Your task to perform on an android device: check android version Image 0: 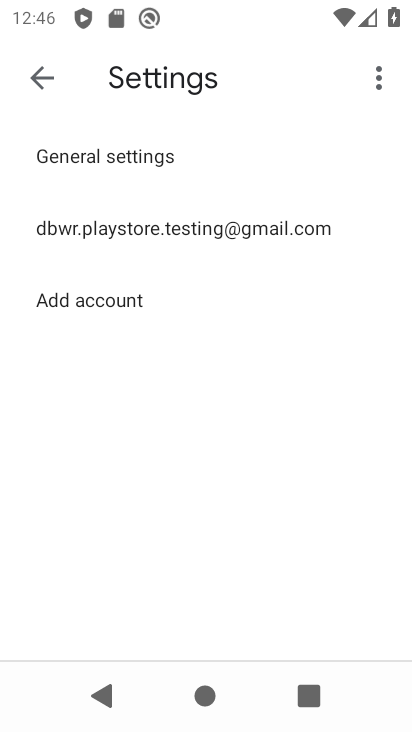
Step 0: press home button
Your task to perform on an android device: check android version Image 1: 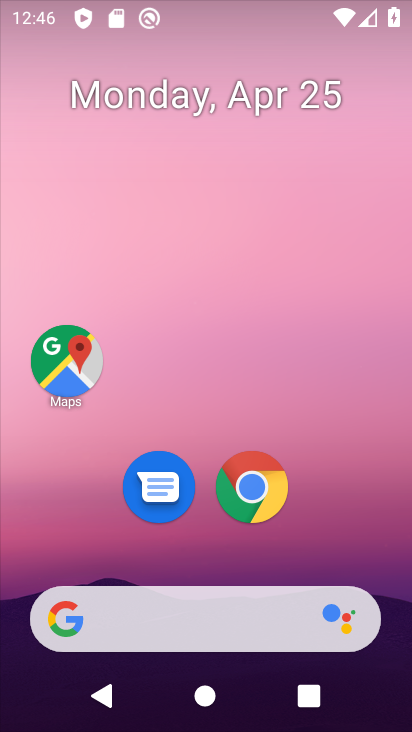
Step 1: drag from (141, 509) to (198, 0)
Your task to perform on an android device: check android version Image 2: 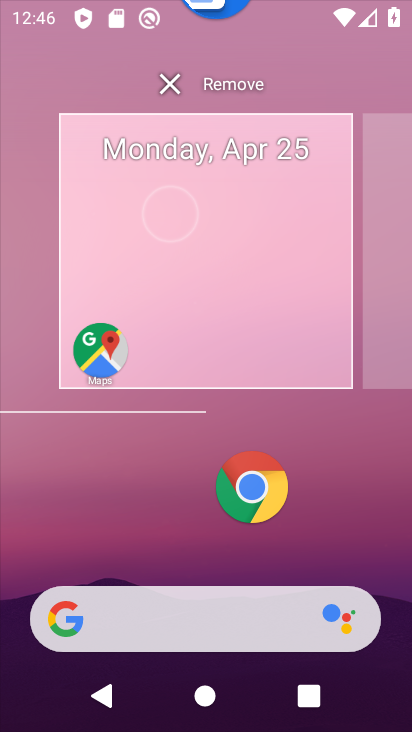
Step 2: click (336, 545)
Your task to perform on an android device: check android version Image 3: 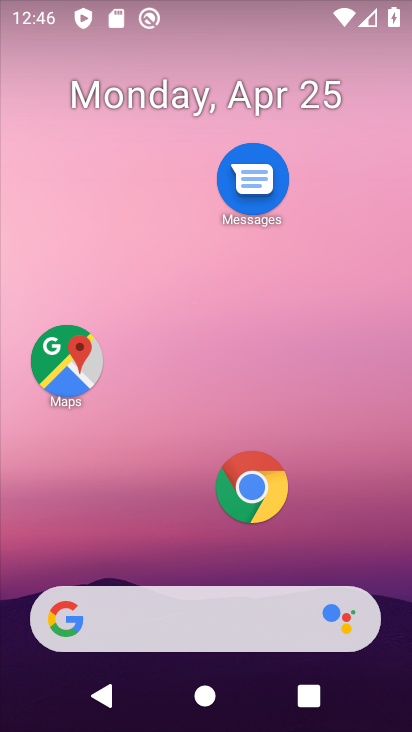
Step 3: drag from (256, 657) to (324, 9)
Your task to perform on an android device: check android version Image 4: 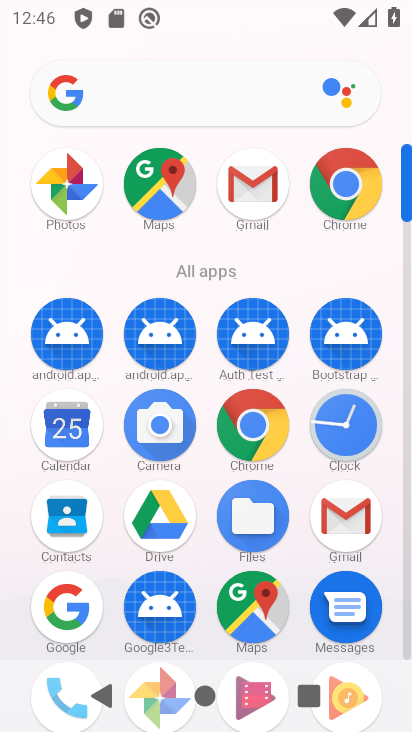
Step 4: drag from (202, 606) to (170, 172)
Your task to perform on an android device: check android version Image 5: 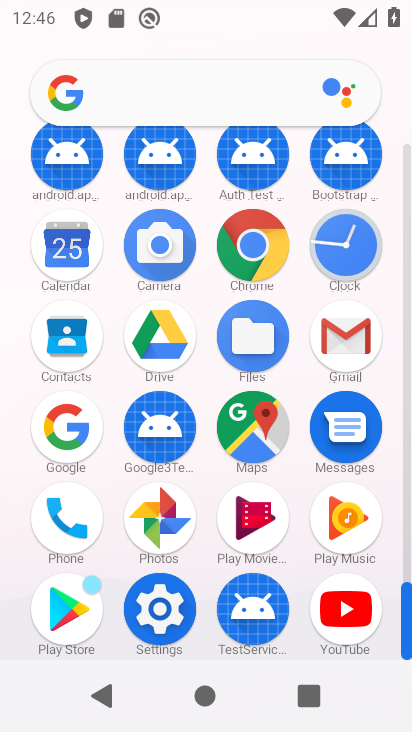
Step 5: click (169, 627)
Your task to perform on an android device: check android version Image 6: 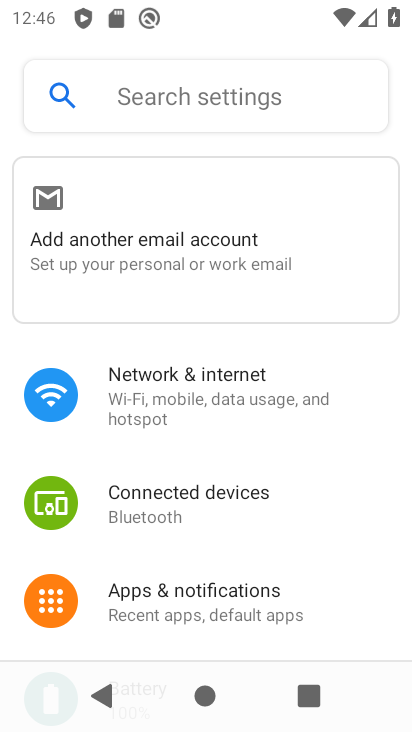
Step 6: drag from (184, 591) to (255, 159)
Your task to perform on an android device: check android version Image 7: 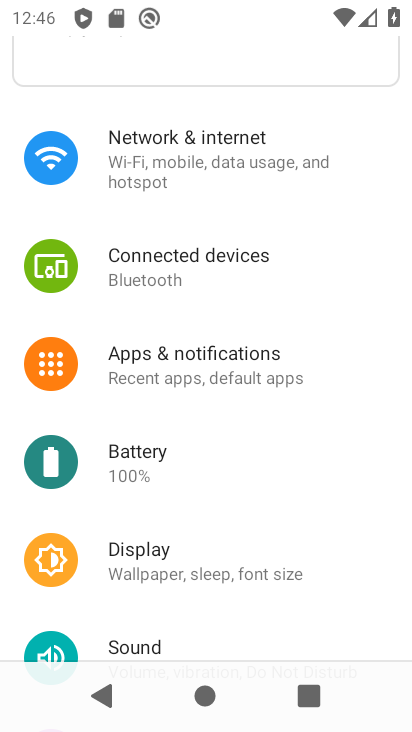
Step 7: drag from (194, 574) to (269, 25)
Your task to perform on an android device: check android version Image 8: 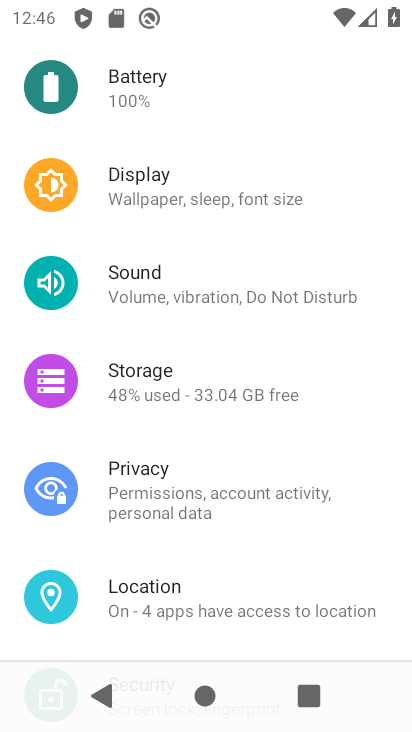
Step 8: drag from (246, 504) to (270, 5)
Your task to perform on an android device: check android version Image 9: 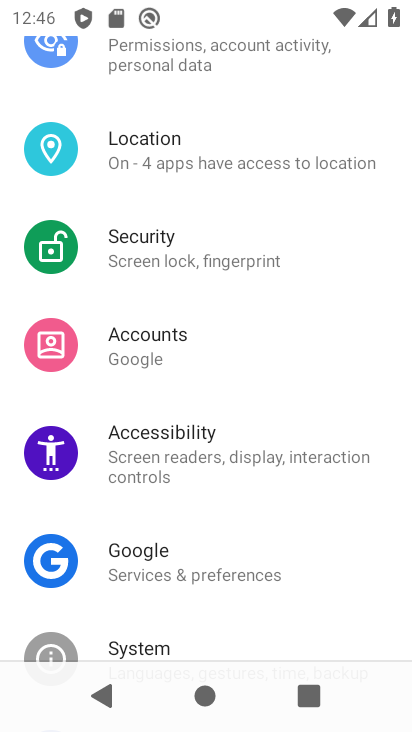
Step 9: drag from (254, 593) to (233, 68)
Your task to perform on an android device: check android version Image 10: 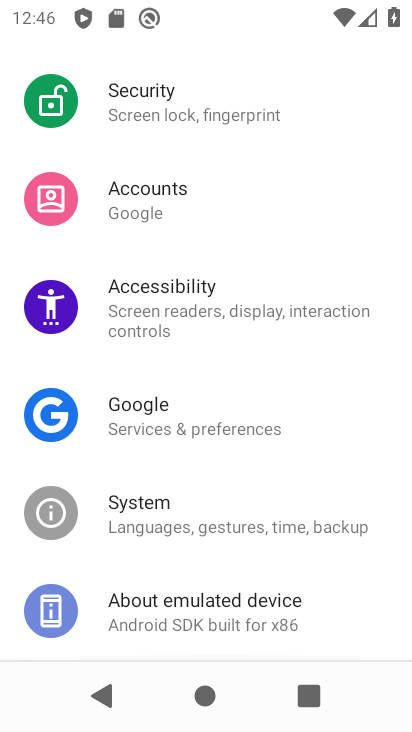
Step 10: click (266, 620)
Your task to perform on an android device: check android version Image 11: 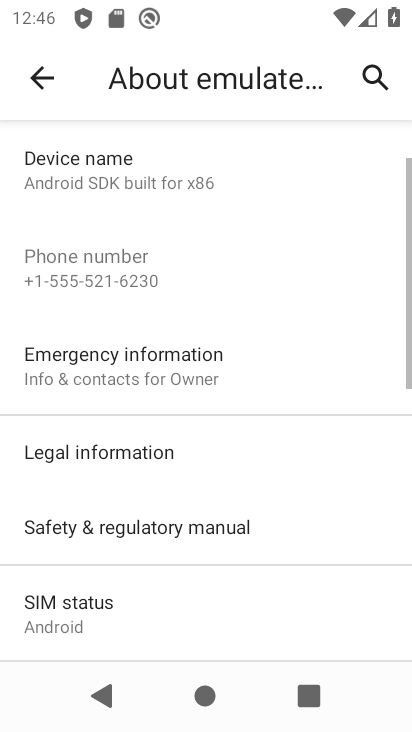
Step 11: task complete